Your task to perform on an android device: Open Chrome and go to settings Image 0: 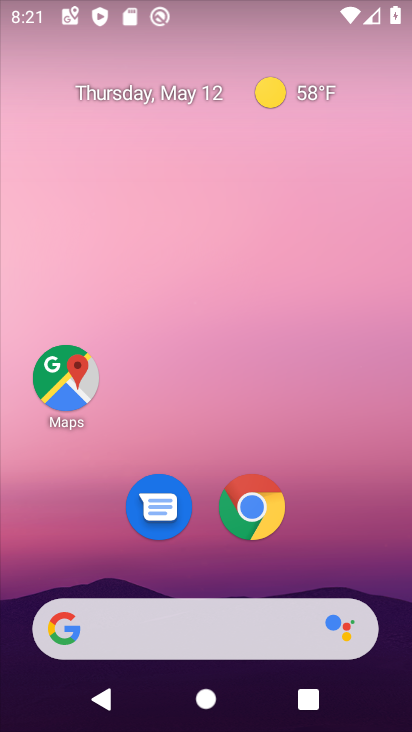
Step 0: click (235, 509)
Your task to perform on an android device: Open Chrome and go to settings Image 1: 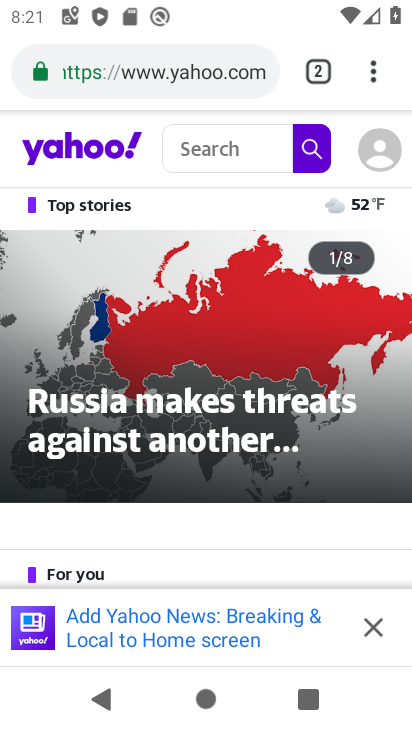
Step 1: task complete